Your task to perform on an android device: turn vacation reply on in the gmail app Image 0: 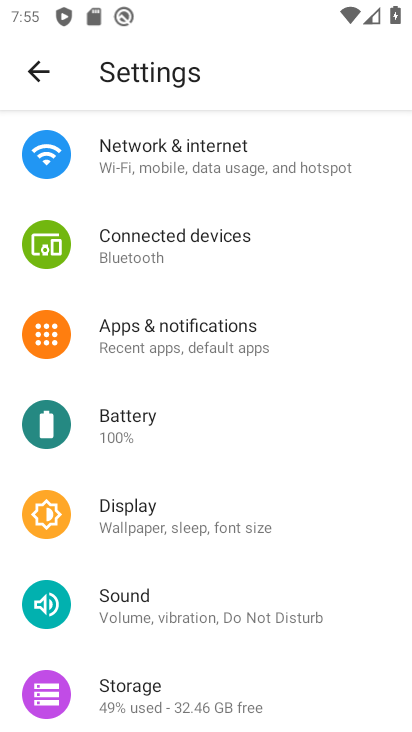
Step 0: press home button
Your task to perform on an android device: turn vacation reply on in the gmail app Image 1: 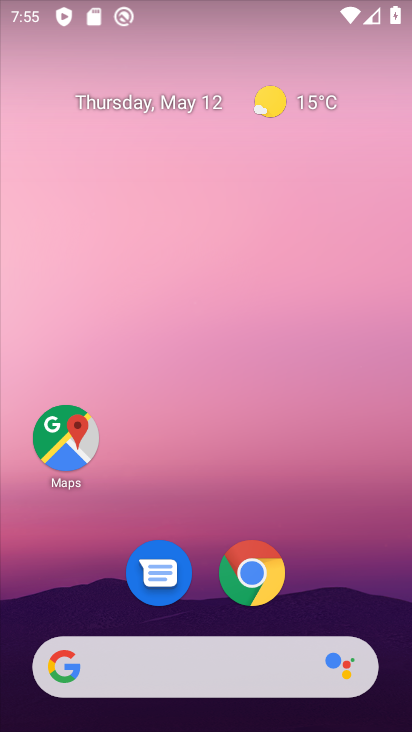
Step 1: drag from (325, 580) to (127, 77)
Your task to perform on an android device: turn vacation reply on in the gmail app Image 2: 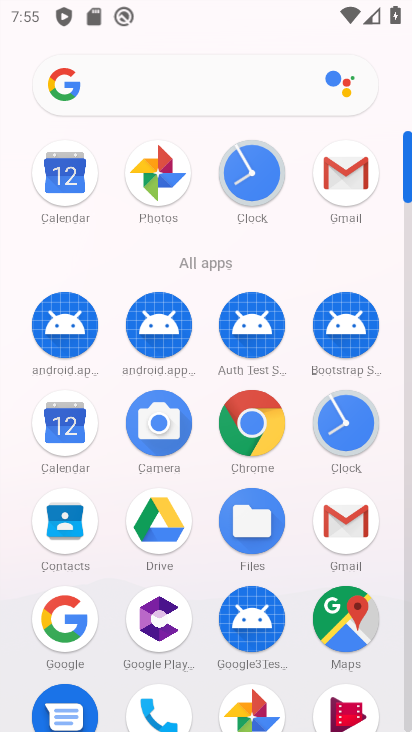
Step 2: click (334, 176)
Your task to perform on an android device: turn vacation reply on in the gmail app Image 3: 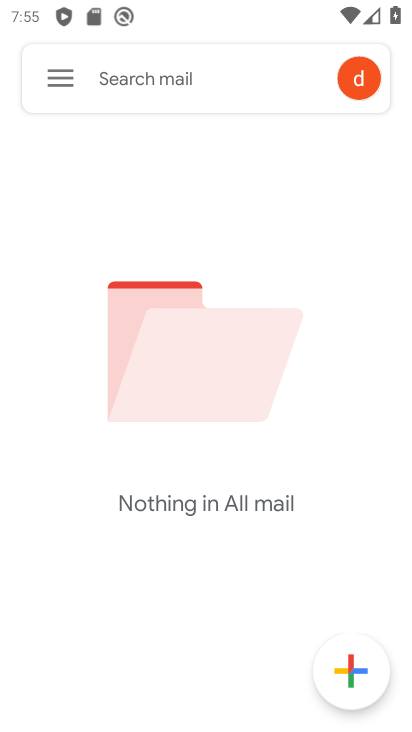
Step 3: click (58, 69)
Your task to perform on an android device: turn vacation reply on in the gmail app Image 4: 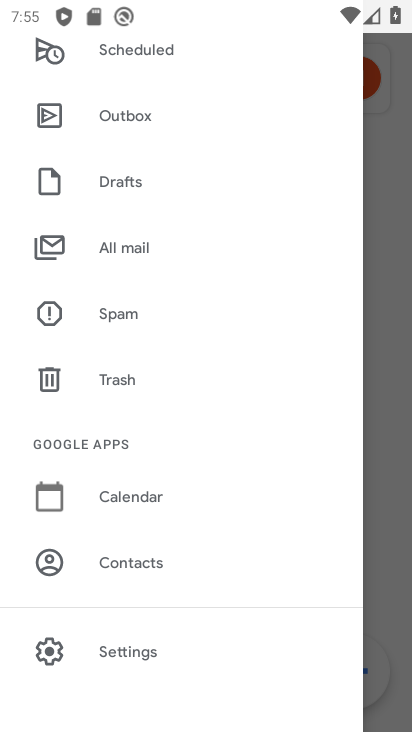
Step 4: click (137, 648)
Your task to perform on an android device: turn vacation reply on in the gmail app Image 5: 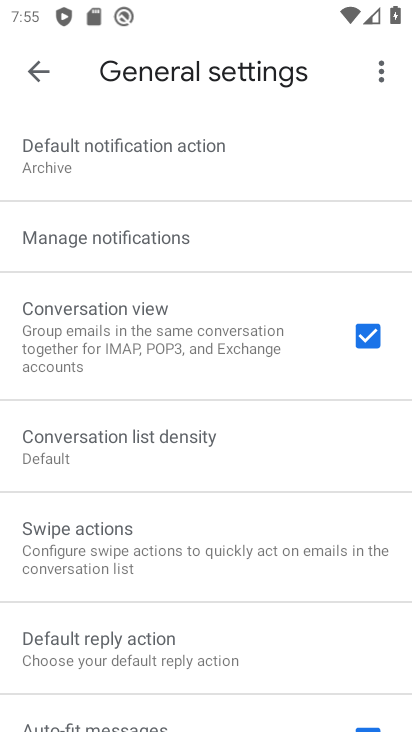
Step 5: click (36, 75)
Your task to perform on an android device: turn vacation reply on in the gmail app Image 6: 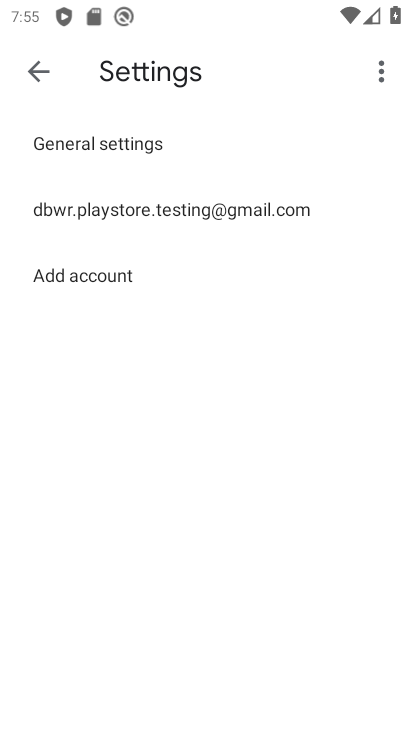
Step 6: click (120, 210)
Your task to perform on an android device: turn vacation reply on in the gmail app Image 7: 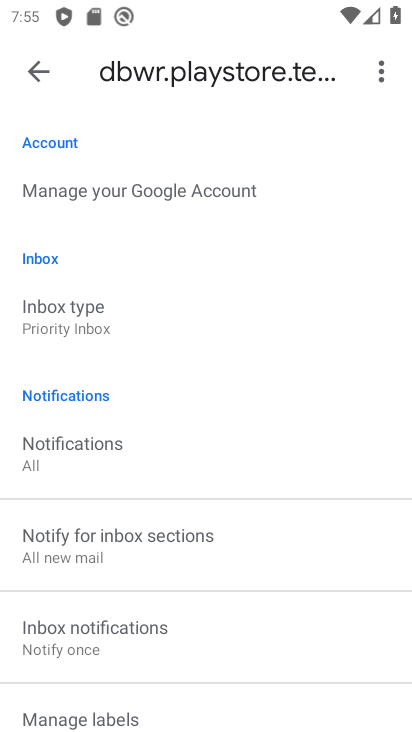
Step 7: drag from (223, 494) to (182, 37)
Your task to perform on an android device: turn vacation reply on in the gmail app Image 8: 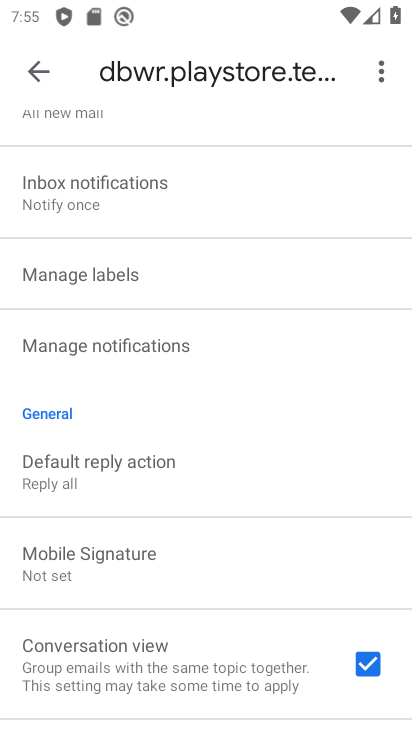
Step 8: drag from (292, 521) to (273, 182)
Your task to perform on an android device: turn vacation reply on in the gmail app Image 9: 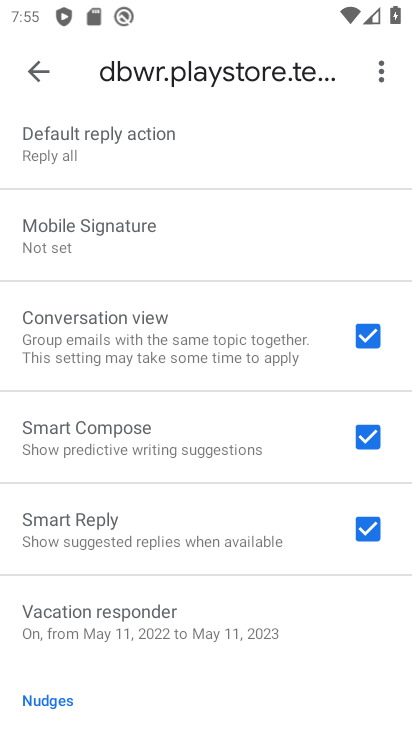
Step 9: click (142, 610)
Your task to perform on an android device: turn vacation reply on in the gmail app Image 10: 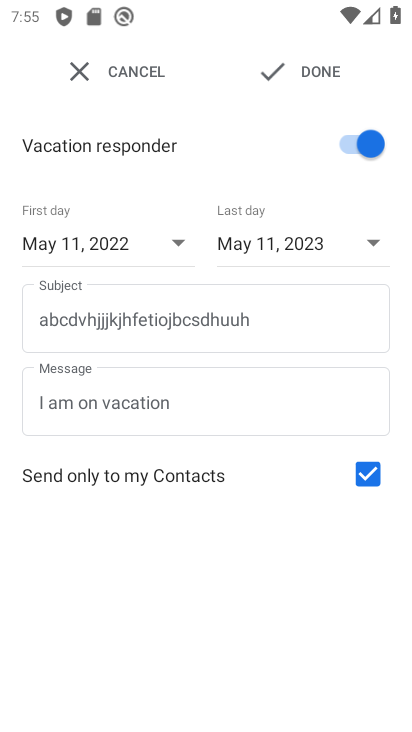
Step 10: task complete